Your task to perform on an android device: turn notification dots on Image 0: 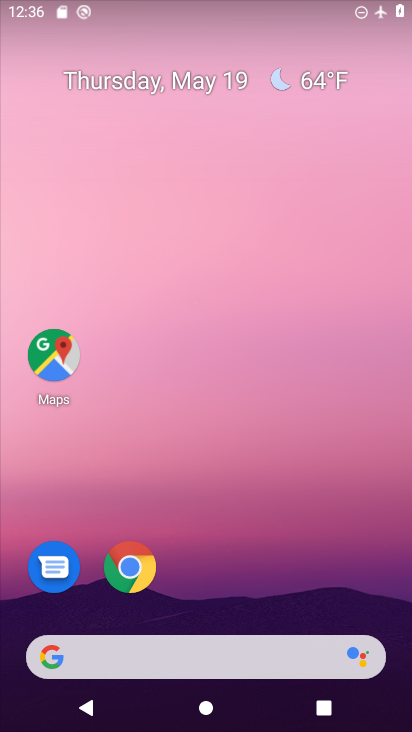
Step 0: drag from (361, 551) to (366, 53)
Your task to perform on an android device: turn notification dots on Image 1: 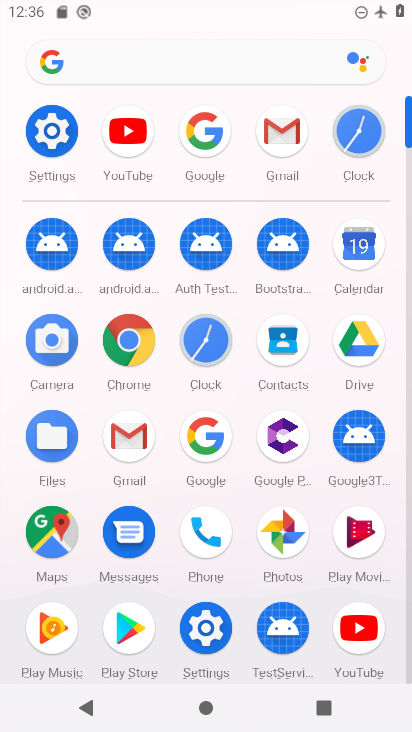
Step 1: click (57, 155)
Your task to perform on an android device: turn notification dots on Image 2: 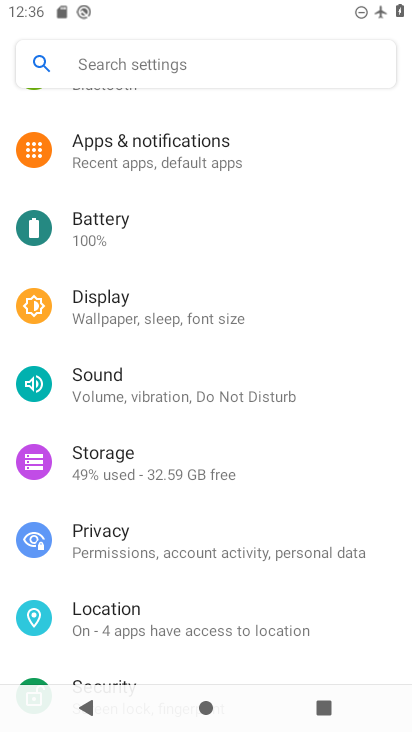
Step 2: drag from (198, 619) to (232, 164)
Your task to perform on an android device: turn notification dots on Image 3: 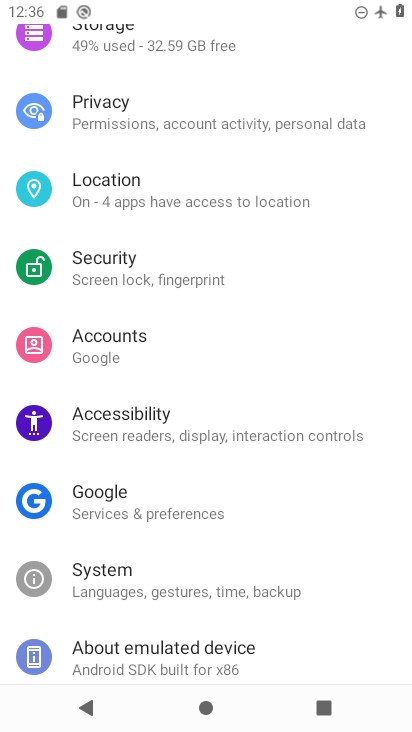
Step 3: drag from (147, 597) to (191, 586)
Your task to perform on an android device: turn notification dots on Image 4: 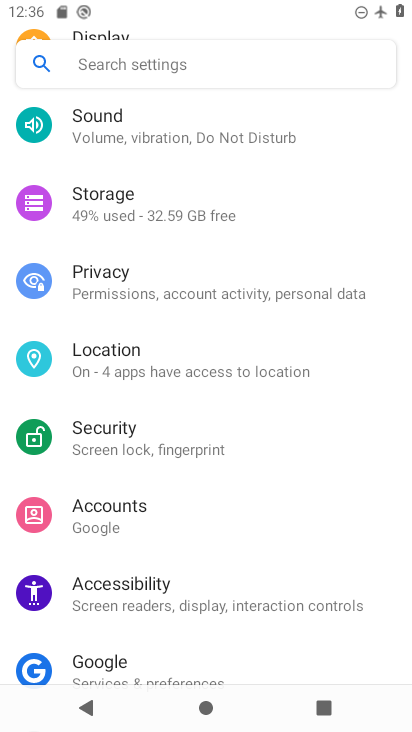
Step 4: drag from (220, 301) to (194, 585)
Your task to perform on an android device: turn notification dots on Image 5: 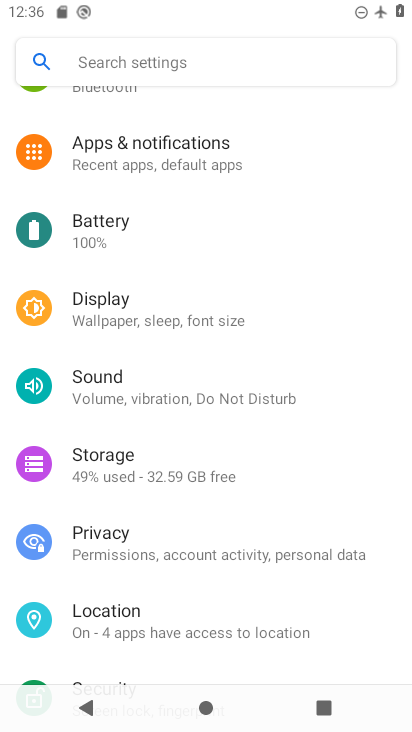
Step 5: click (217, 161)
Your task to perform on an android device: turn notification dots on Image 6: 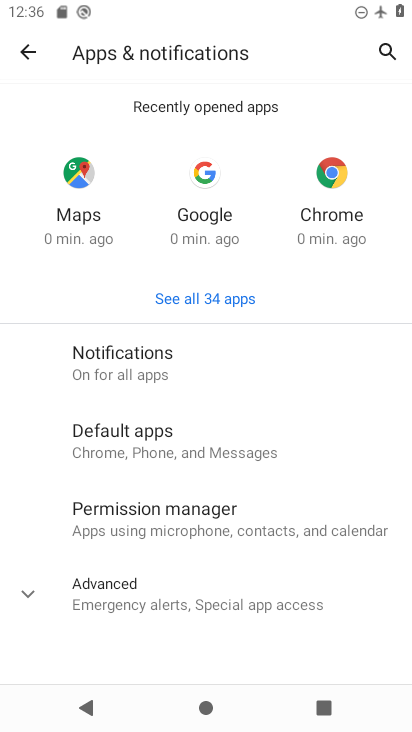
Step 6: click (184, 386)
Your task to perform on an android device: turn notification dots on Image 7: 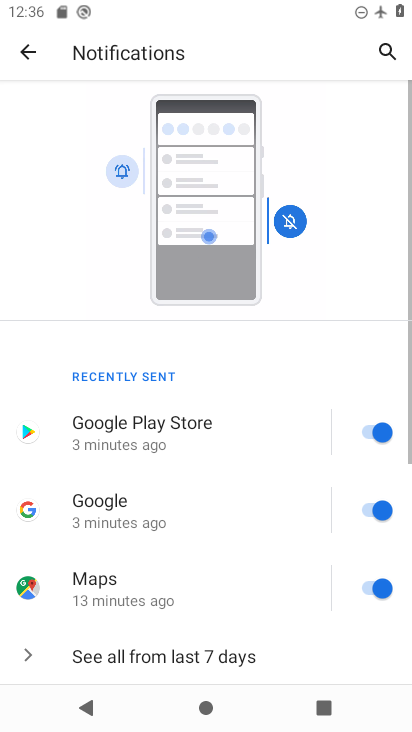
Step 7: drag from (211, 617) to (226, 227)
Your task to perform on an android device: turn notification dots on Image 8: 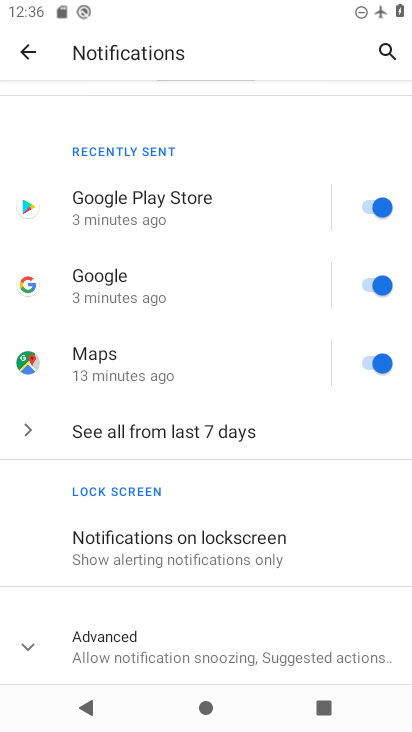
Step 8: click (29, 646)
Your task to perform on an android device: turn notification dots on Image 9: 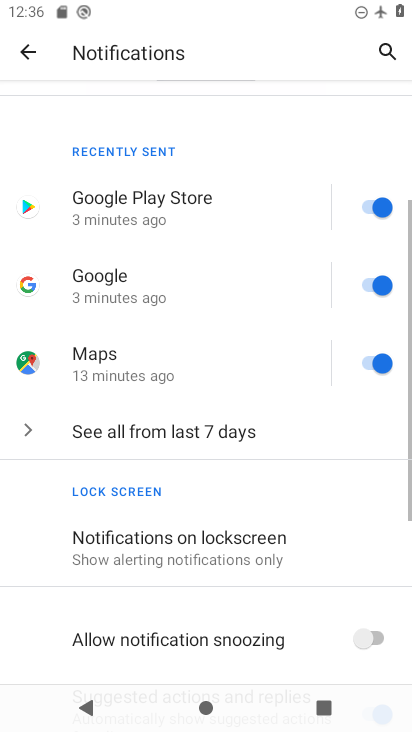
Step 9: drag from (135, 623) to (188, 291)
Your task to perform on an android device: turn notification dots on Image 10: 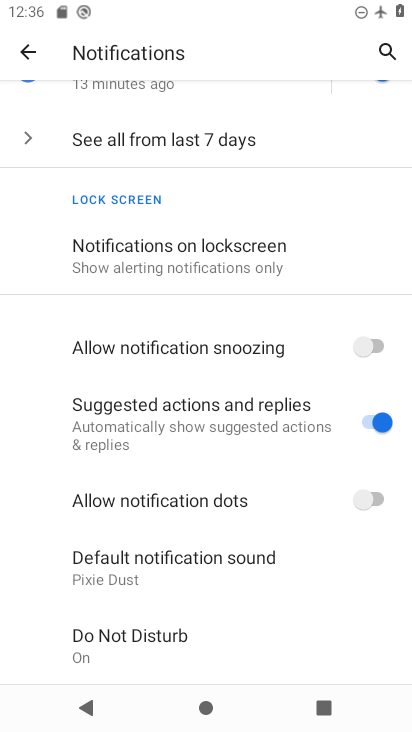
Step 10: click (383, 504)
Your task to perform on an android device: turn notification dots on Image 11: 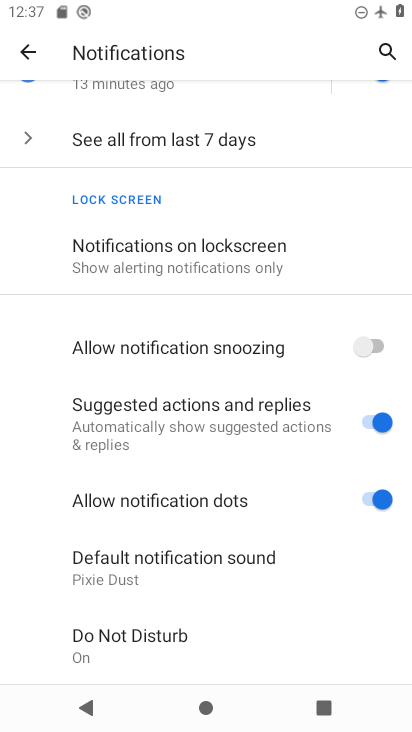
Step 11: task complete